Your task to perform on an android device: turn on priority inbox in the gmail app Image 0: 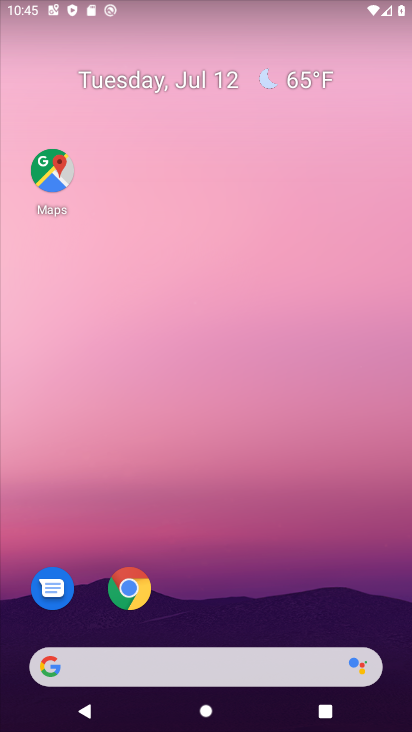
Step 0: drag from (52, 720) to (143, 222)
Your task to perform on an android device: turn on priority inbox in the gmail app Image 1: 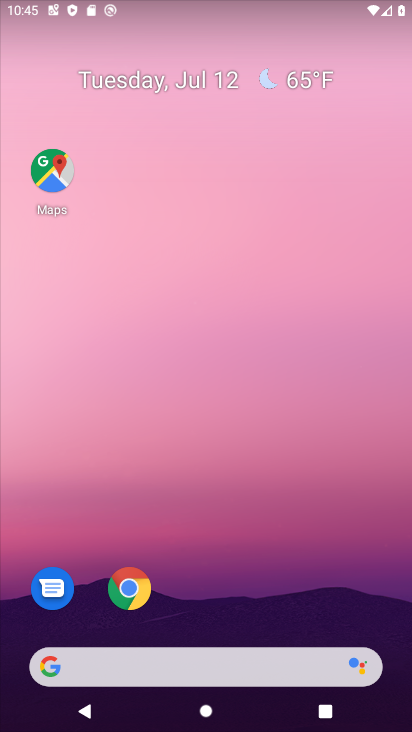
Step 1: drag from (31, 708) to (156, 69)
Your task to perform on an android device: turn on priority inbox in the gmail app Image 2: 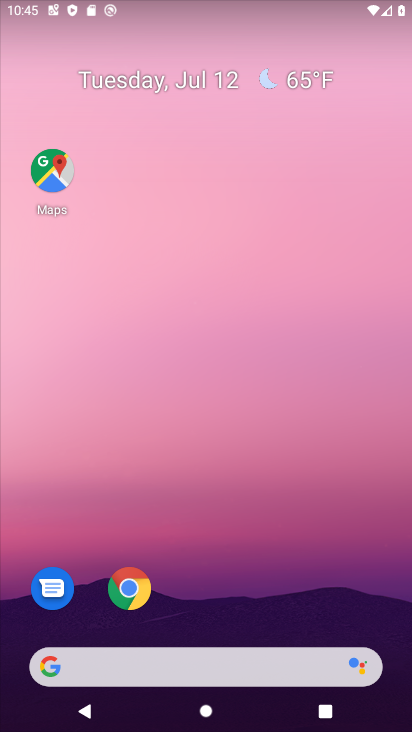
Step 2: drag from (40, 696) to (192, 15)
Your task to perform on an android device: turn on priority inbox in the gmail app Image 3: 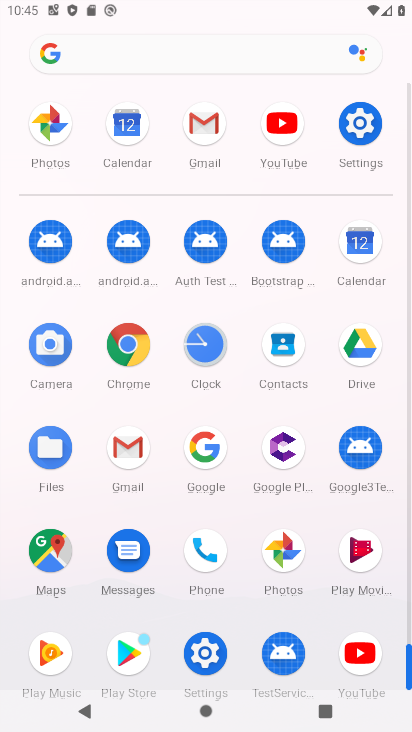
Step 3: click (120, 452)
Your task to perform on an android device: turn on priority inbox in the gmail app Image 4: 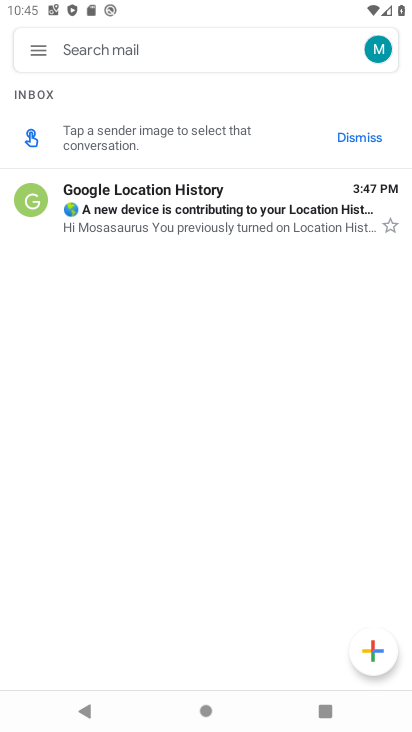
Step 4: click (38, 26)
Your task to perform on an android device: turn on priority inbox in the gmail app Image 5: 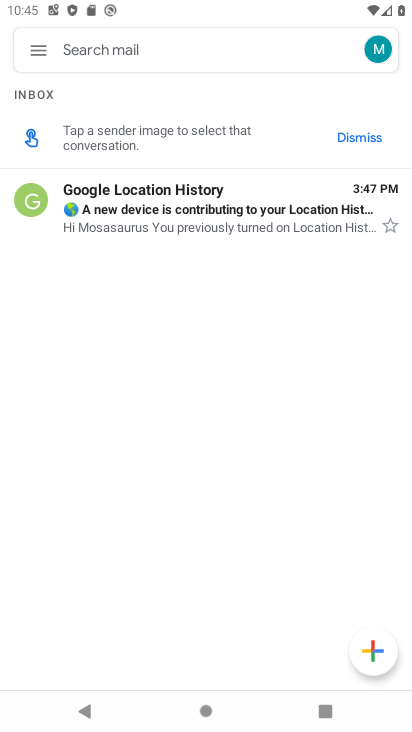
Step 5: click (34, 69)
Your task to perform on an android device: turn on priority inbox in the gmail app Image 6: 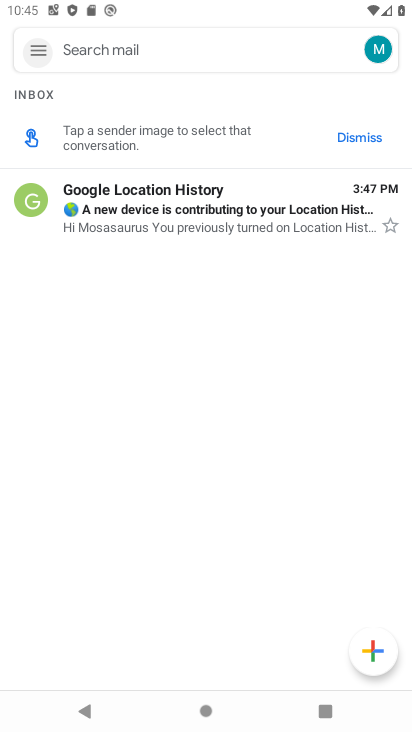
Step 6: click (35, 59)
Your task to perform on an android device: turn on priority inbox in the gmail app Image 7: 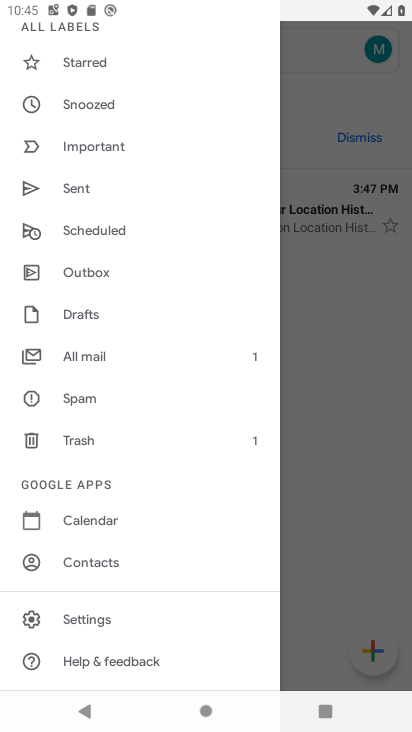
Step 7: click (90, 616)
Your task to perform on an android device: turn on priority inbox in the gmail app Image 8: 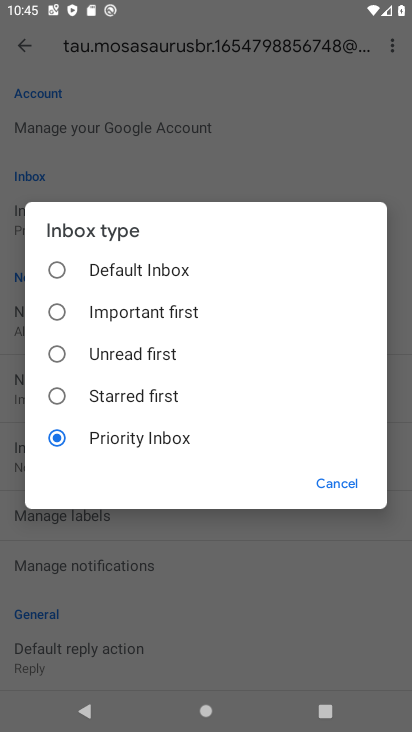
Step 8: task complete